Your task to perform on an android device: allow cookies in the chrome app Image 0: 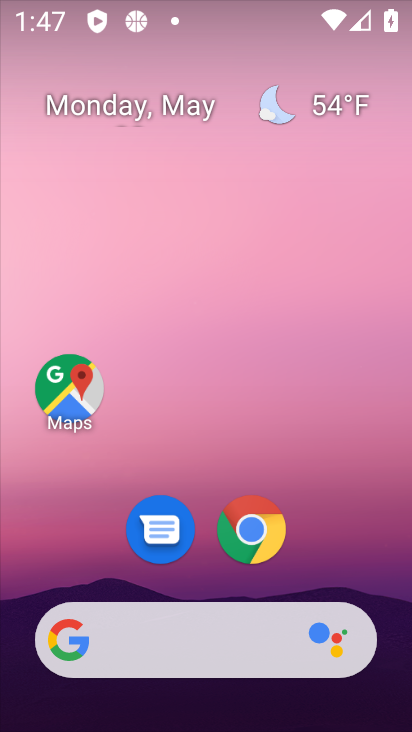
Step 0: click (270, 538)
Your task to perform on an android device: allow cookies in the chrome app Image 1: 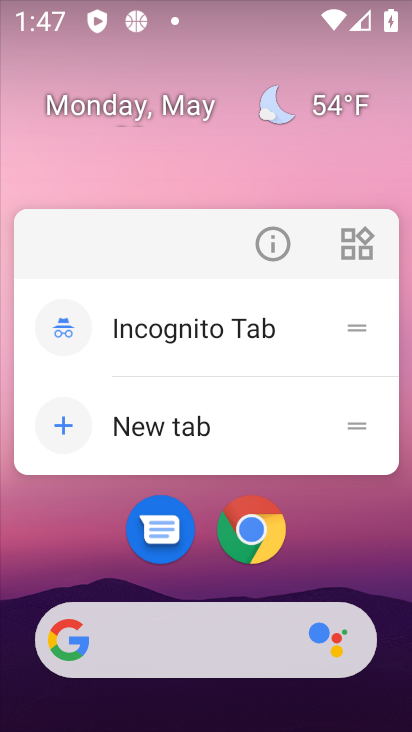
Step 1: click (266, 537)
Your task to perform on an android device: allow cookies in the chrome app Image 2: 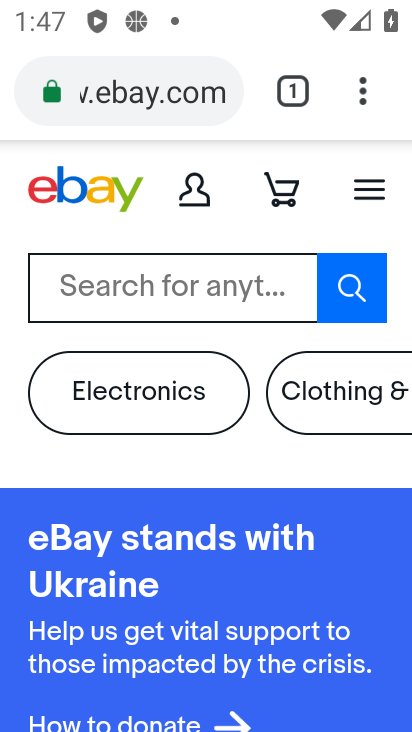
Step 2: drag from (398, 101) to (244, 549)
Your task to perform on an android device: allow cookies in the chrome app Image 3: 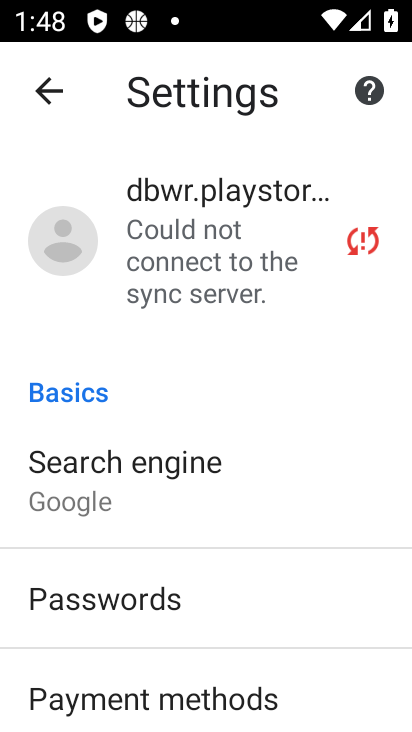
Step 3: drag from (194, 683) to (293, 286)
Your task to perform on an android device: allow cookies in the chrome app Image 4: 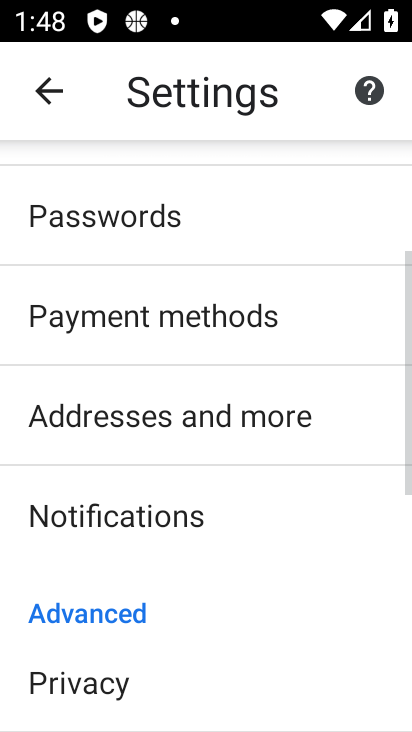
Step 4: drag from (169, 638) to (258, 246)
Your task to perform on an android device: allow cookies in the chrome app Image 5: 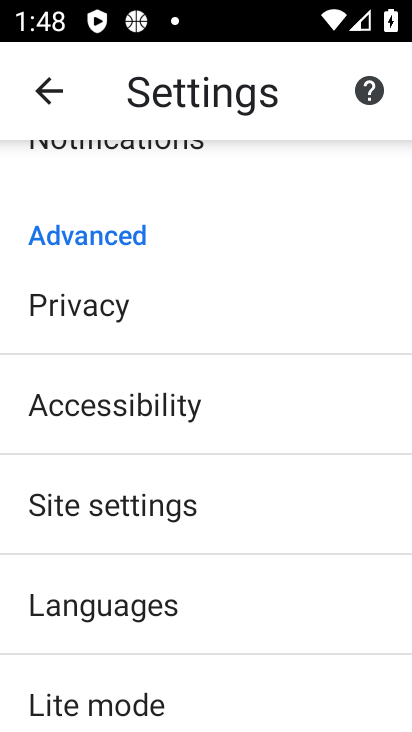
Step 5: click (210, 506)
Your task to perform on an android device: allow cookies in the chrome app Image 6: 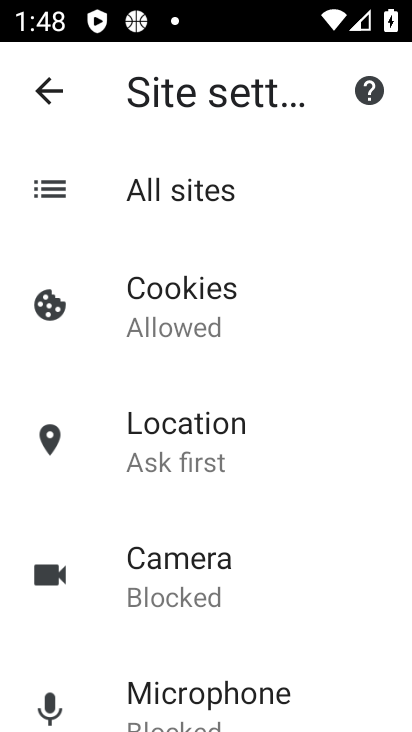
Step 6: task complete